Your task to perform on an android device: Go to accessibility settings Image 0: 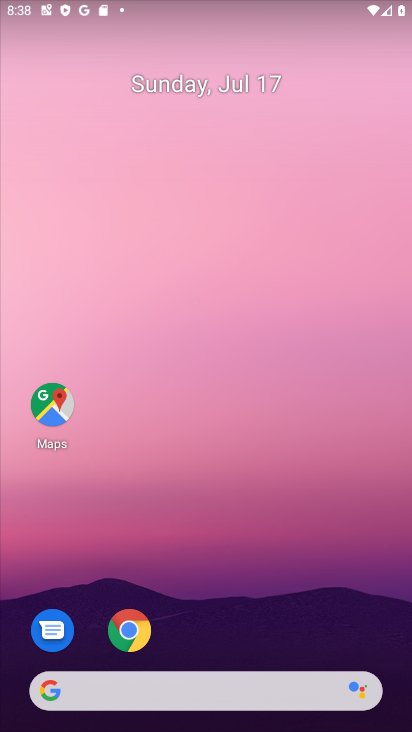
Step 0: drag from (198, 609) to (195, 312)
Your task to perform on an android device: Go to accessibility settings Image 1: 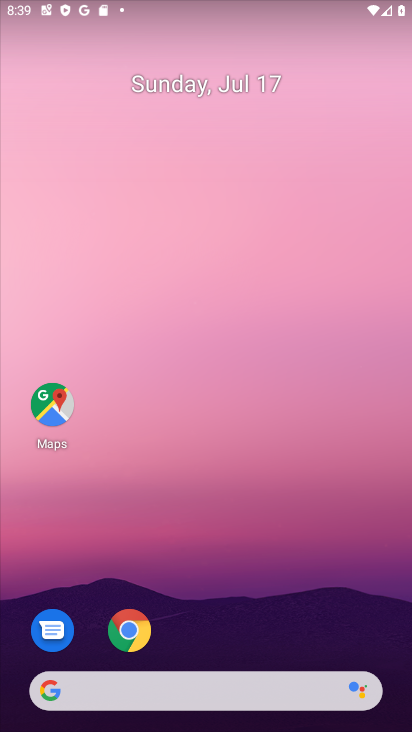
Step 1: drag from (154, 452) to (162, 141)
Your task to perform on an android device: Go to accessibility settings Image 2: 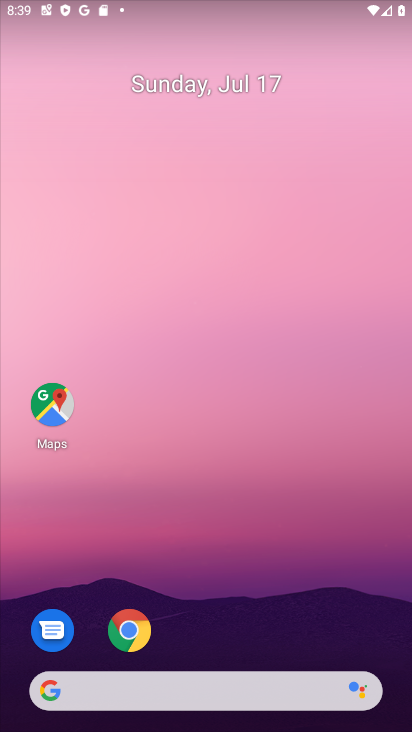
Step 2: drag from (214, 310) to (204, 98)
Your task to perform on an android device: Go to accessibility settings Image 3: 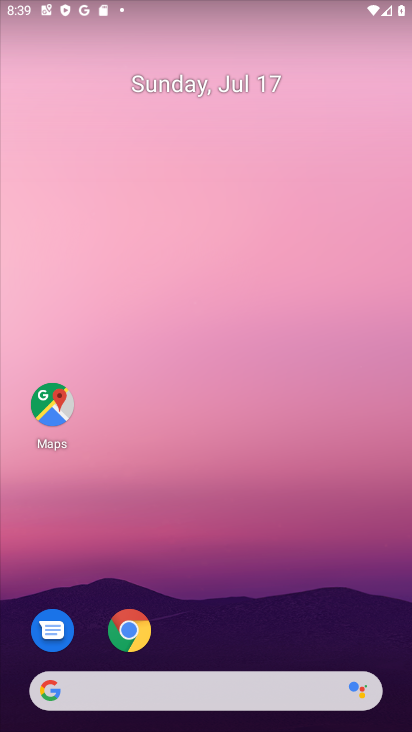
Step 3: drag from (203, 639) to (247, 54)
Your task to perform on an android device: Go to accessibility settings Image 4: 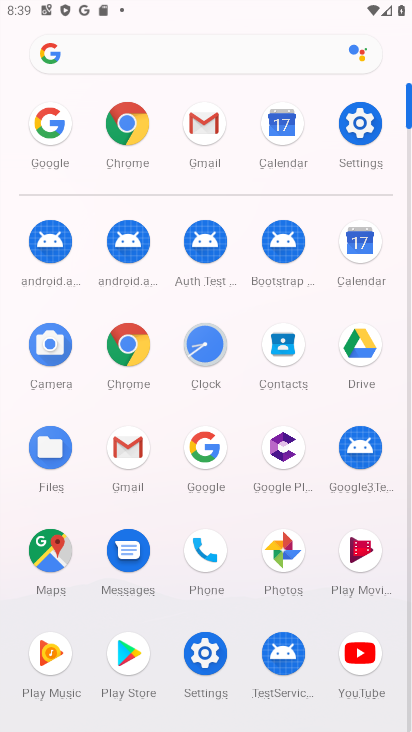
Step 4: click (354, 133)
Your task to perform on an android device: Go to accessibility settings Image 5: 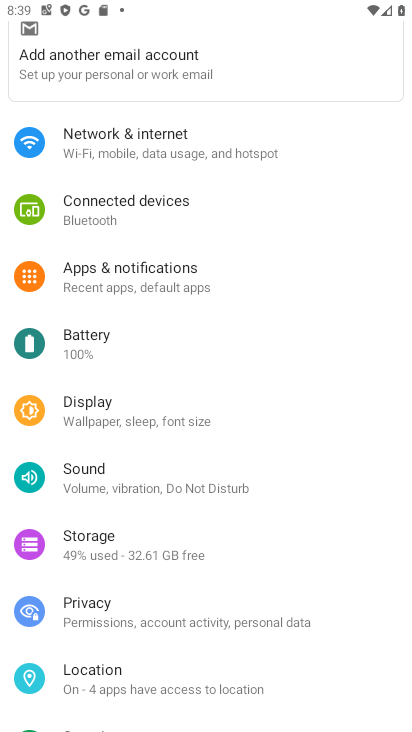
Step 5: drag from (165, 609) to (163, 372)
Your task to perform on an android device: Go to accessibility settings Image 6: 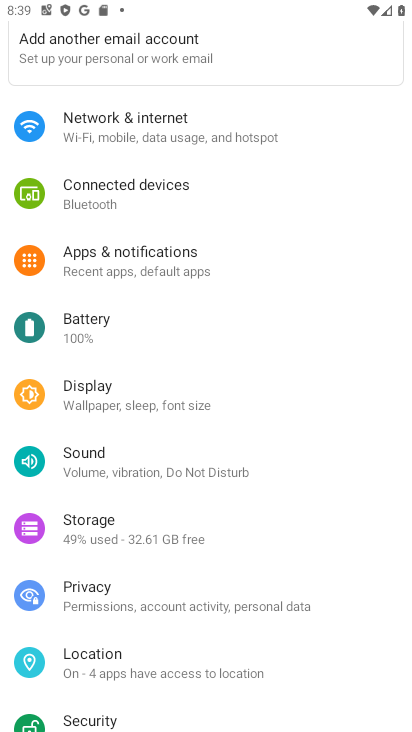
Step 6: drag from (160, 620) to (164, 208)
Your task to perform on an android device: Go to accessibility settings Image 7: 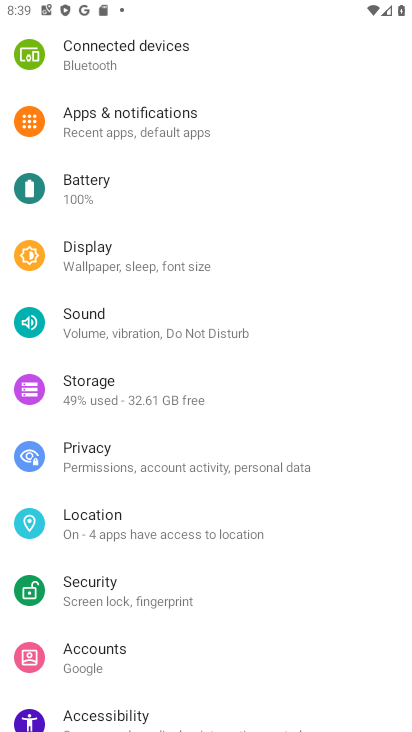
Step 7: drag from (98, 605) to (101, 436)
Your task to perform on an android device: Go to accessibility settings Image 8: 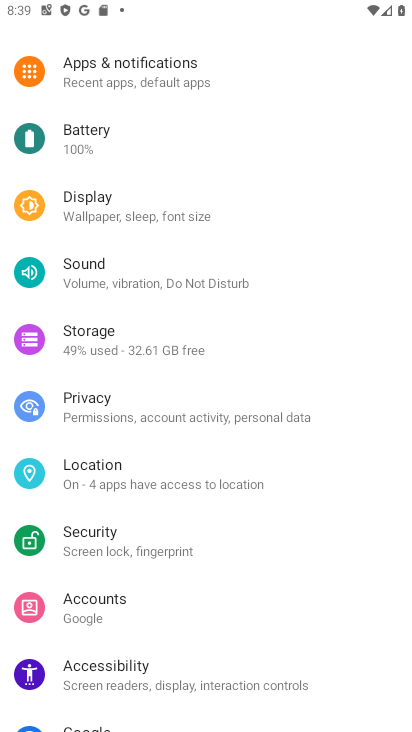
Step 8: click (102, 673)
Your task to perform on an android device: Go to accessibility settings Image 9: 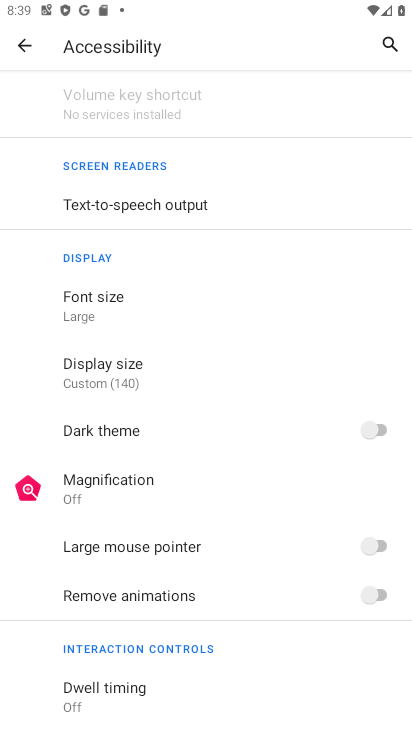
Step 9: task complete